Your task to perform on an android device: turn on airplane mode Image 0: 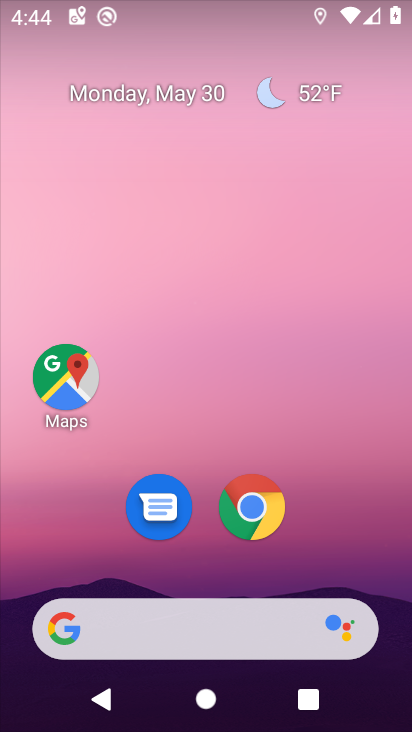
Step 0: press home button
Your task to perform on an android device: turn on airplane mode Image 1: 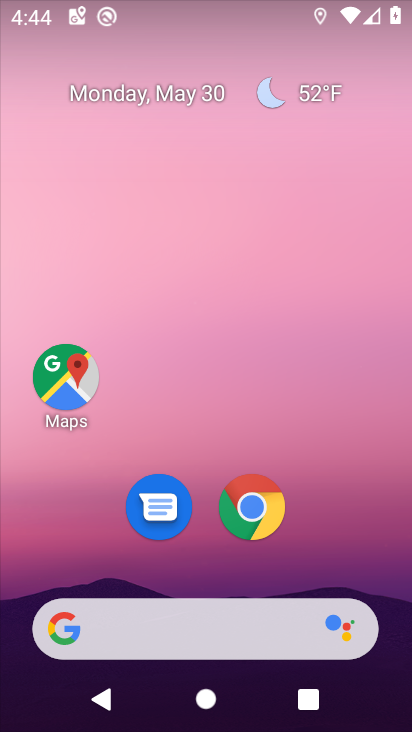
Step 1: drag from (330, 2) to (329, 472)
Your task to perform on an android device: turn on airplane mode Image 2: 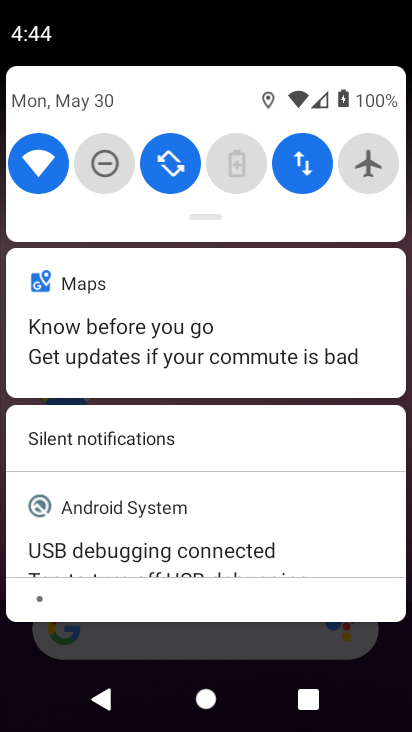
Step 2: click (357, 192)
Your task to perform on an android device: turn on airplane mode Image 3: 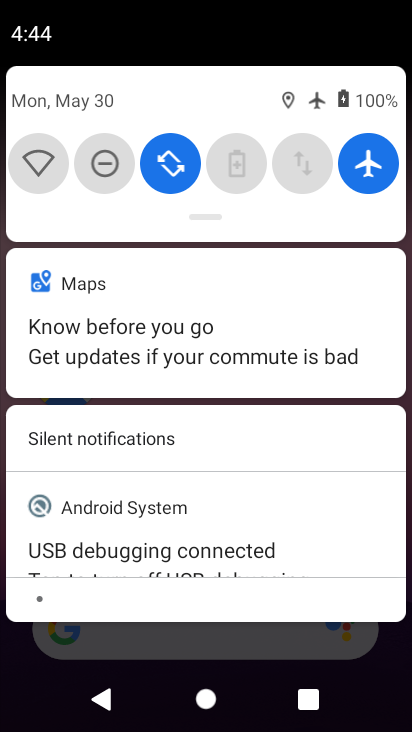
Step 3: task complete